Your task to perform on an android device: allow notifications from all sites in the chrome app Image 0: 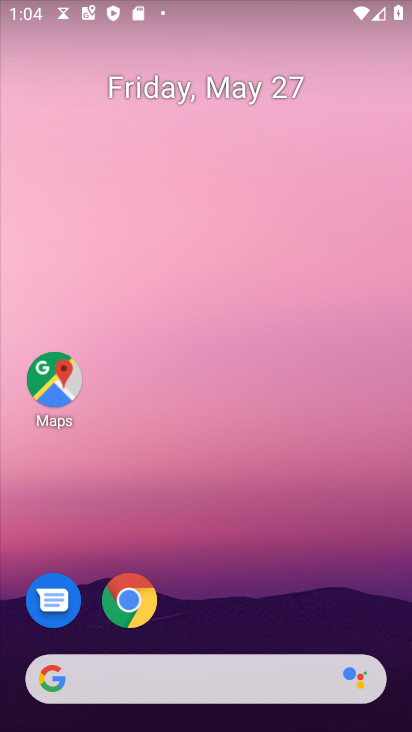
Step 0: click (134, 577)
Your task to perform on an android device: allow notifications from all sites in the chrome app Image 1: 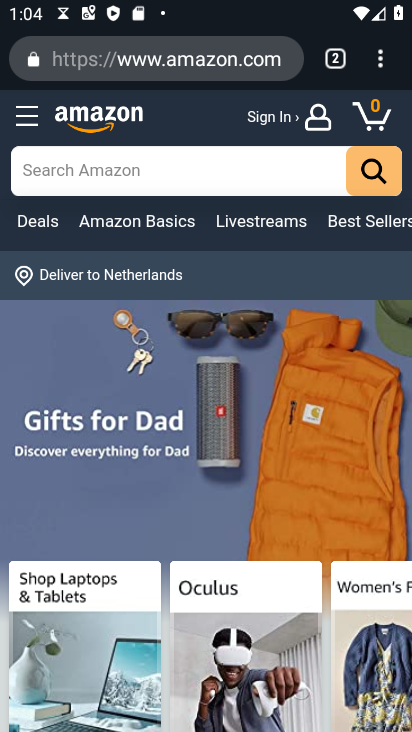
Step 1: click (370, 56)
Your task to perform on an android device: allow notifications from all sites in the chrome app Image 2: 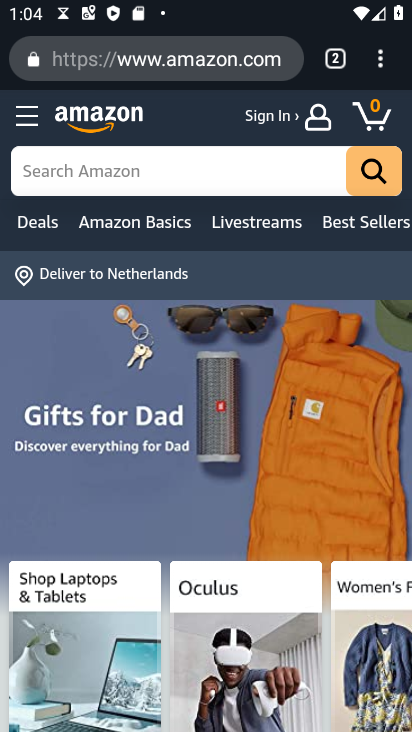
Step 2: click (379, 57)
Your task to perform on an android device: allow notifications from all sites in the chrome app Image 3: 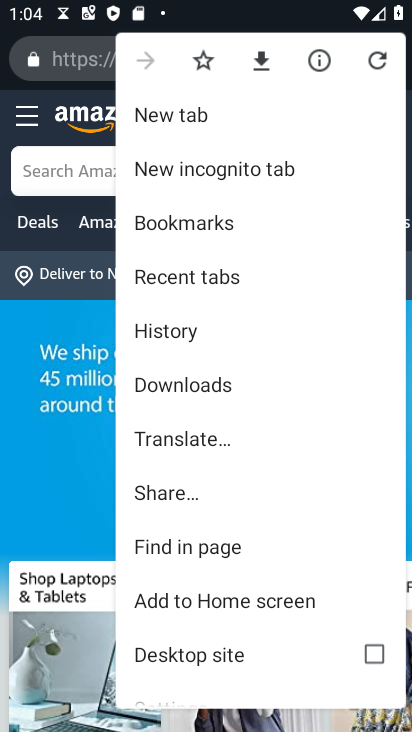
Step 3: drag from (263, 653) to (269, 117)
Your task to perform on an android device: allow notifications from all sites in the chrome app Image 4: 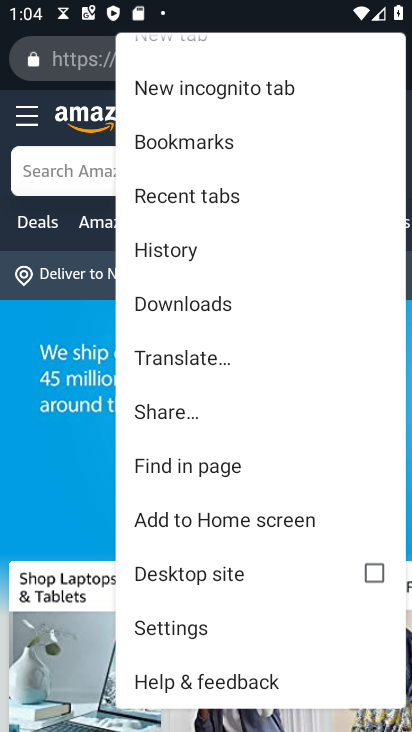
Step 4: click (163, 614)
Your task to perform on an android device: allow notifications from all sites in the chrome app Image 5: 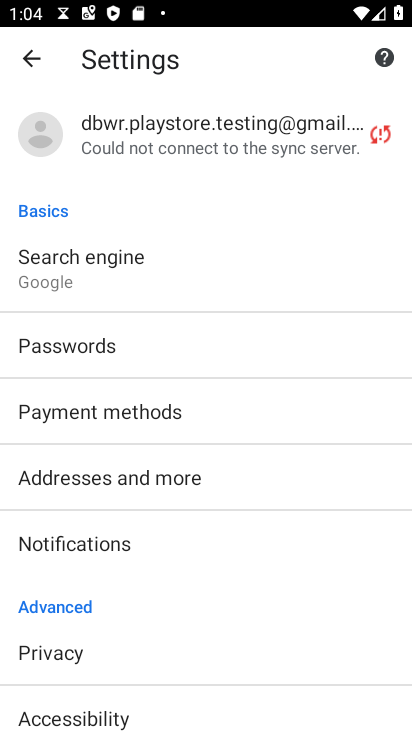
Step 5: click (165, 543)
Your task to perform on an android device: allow notifications from all sites in the chrome app Image 6: 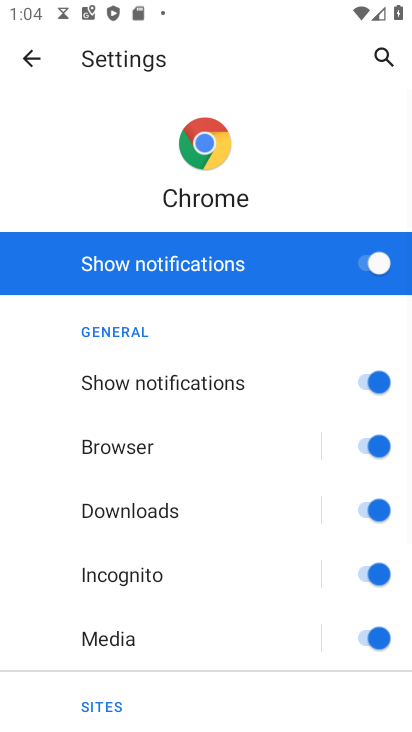
Step 6: drag from (207, 599) to (211, 69)
Your task to perform on an android device: allow notifications from all sites in the chrome app Image 7: 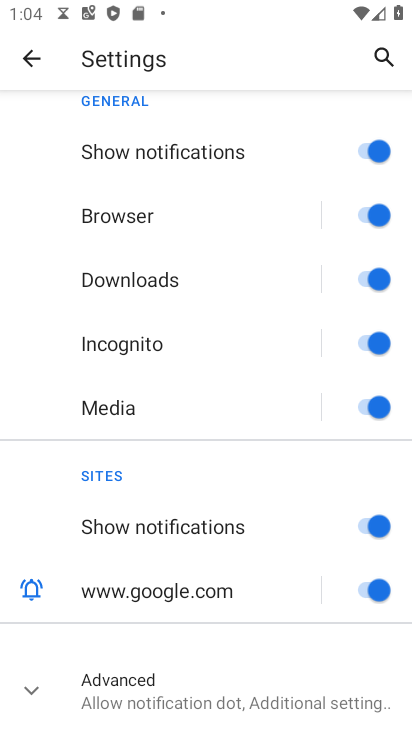
Step 7: drag from (157, 504) to (172, 138)
Your task to perform on an android device: allow notifications from all sites in the chrome app Image 8: 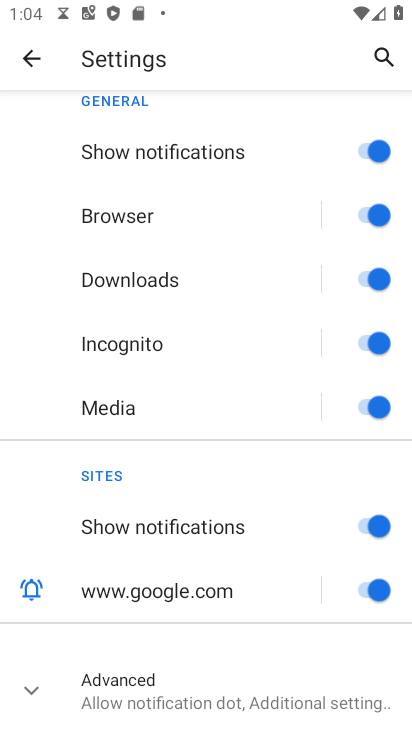
Step 8: click (123, 667)
Your task to perform on an android device: allow notifications from all sites in the chrome app Image 9: 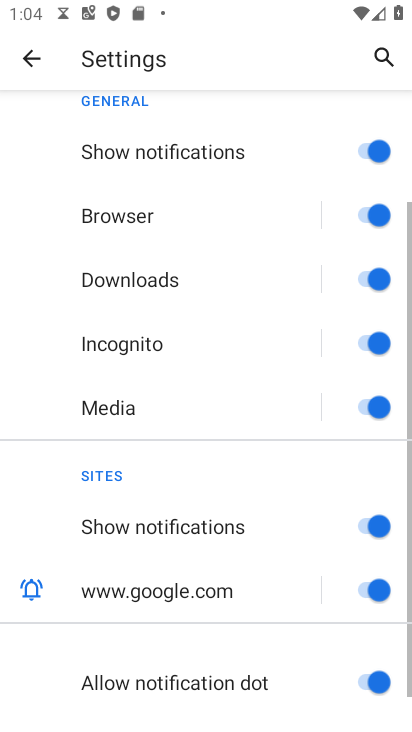
Step 9: task complete